Your task to perform on an android device: turn off javascript in the chrome app Image 0: 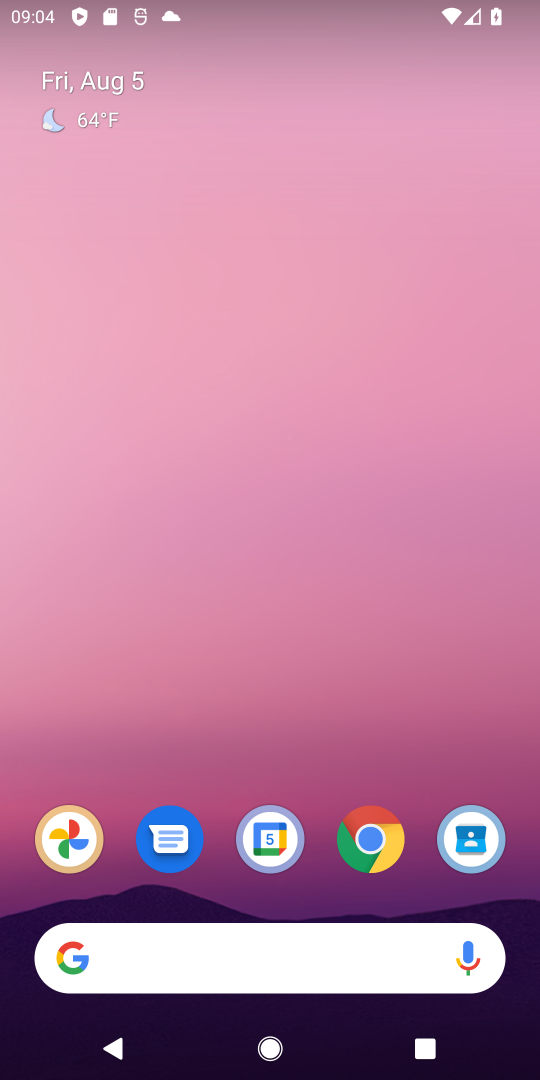
Step 0: click (367, 843)
Your task to perform on an android device: turn off javascript in the chrome app Image 1: 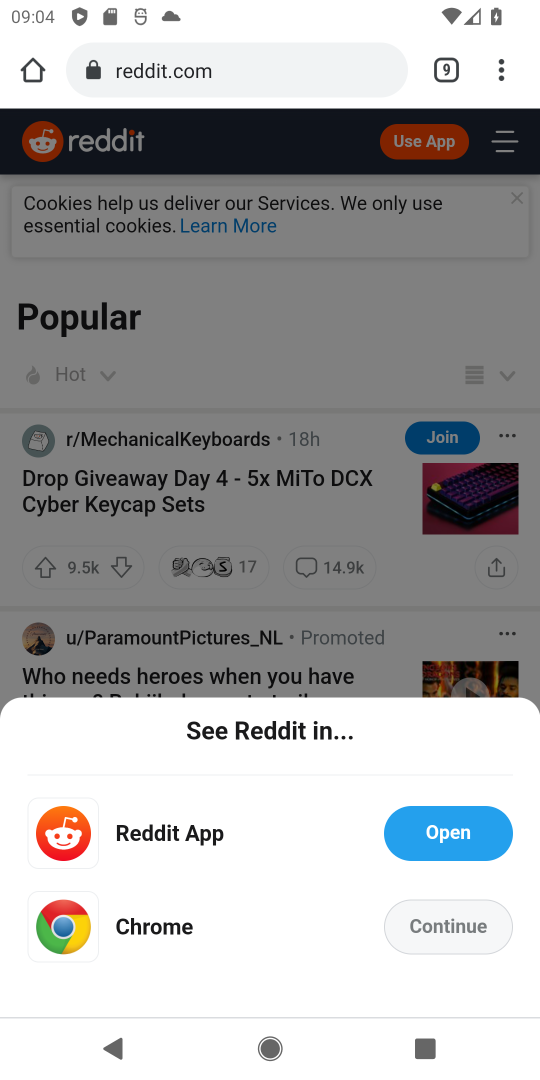
Step 1: click (501, 80)
Your task to perform on an android device: turn off javascript in the chrome app Image 2: 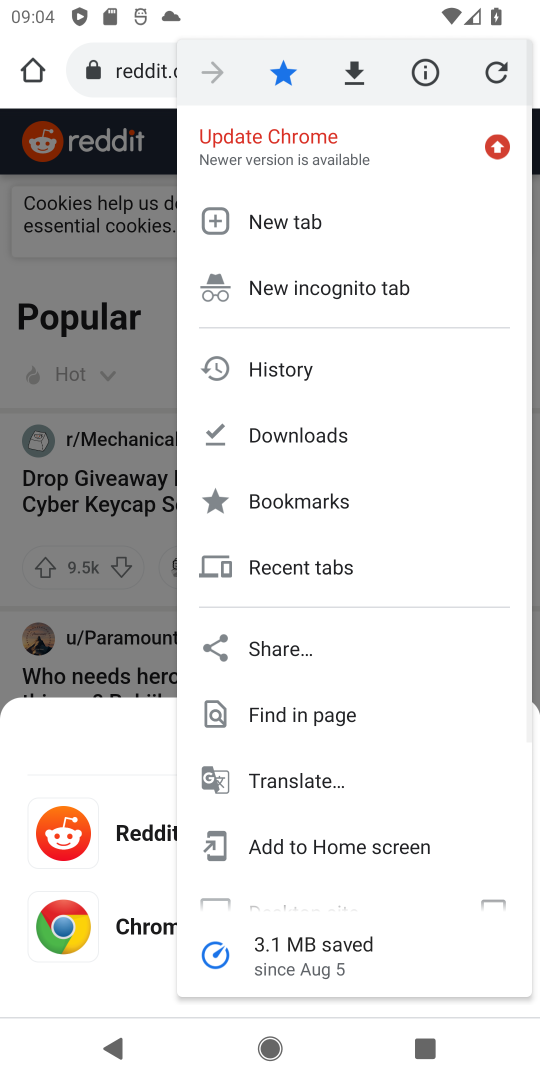
Step 2: click (348, 748)
Your task to perform on an android device: turn off javascript in the chrome app Image 3: 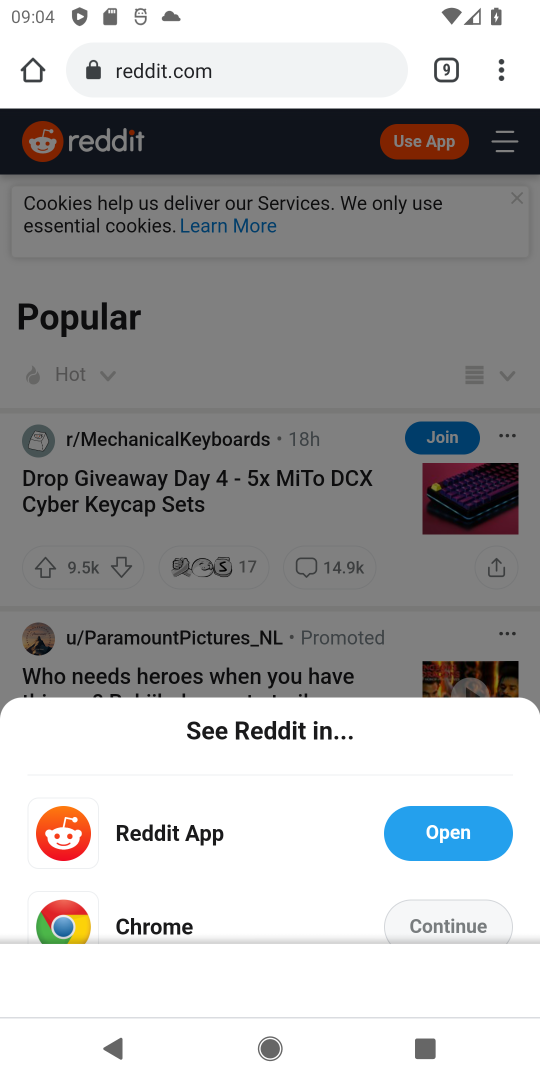
Step 3: drag from (300, 861) to (307, 475)
Your task to perform on an android device: turn off javascript in the chrome app Image 4: 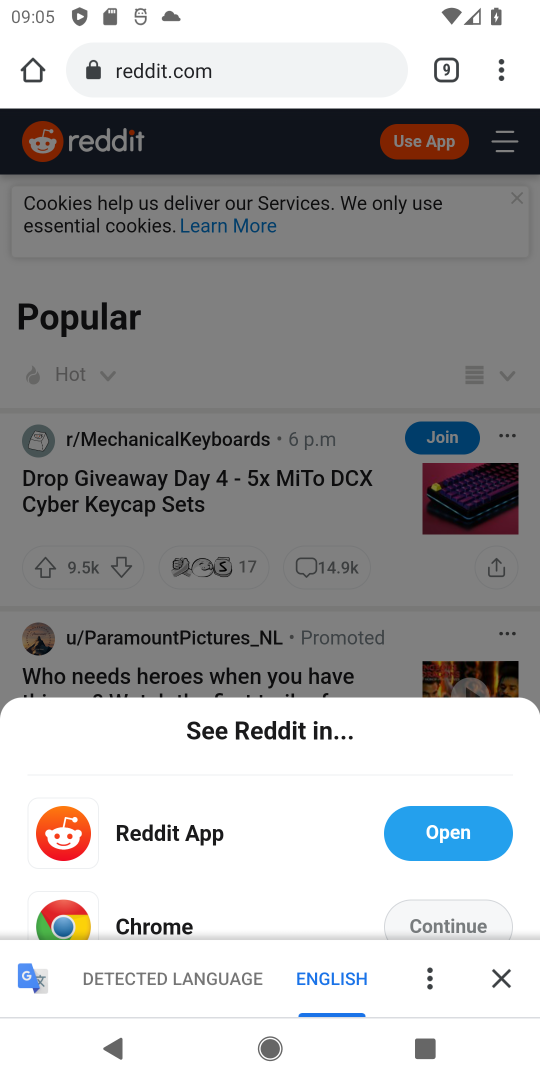
Step 4: click (500, 76)
Your task to perform on an android device: turn off javascript in the chrome app Image 5: 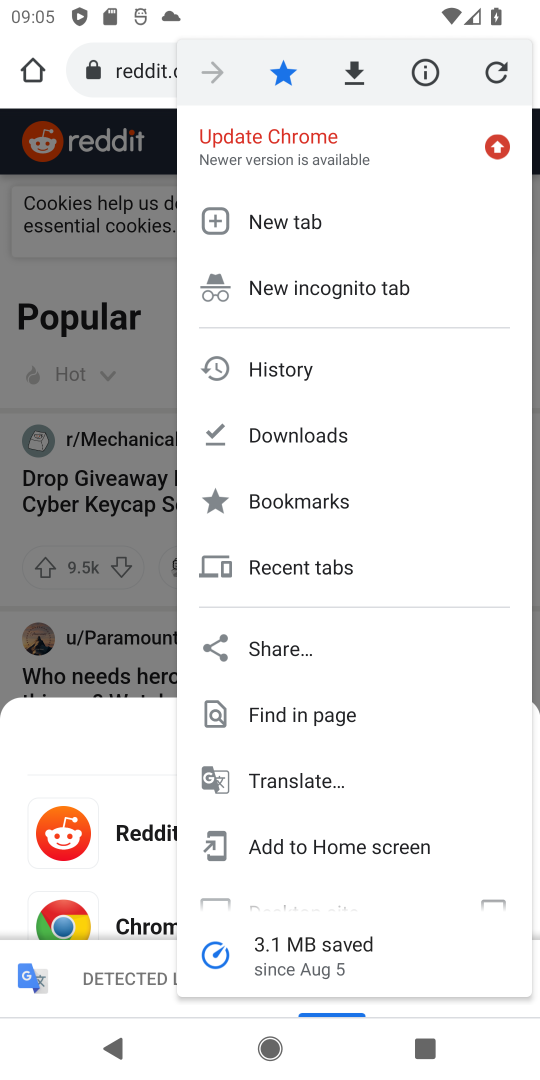
Step 5: drag from (314, 857) to (269, 333)
Your task to perform on an android device: turn off javascript in the chrome app Image 6: 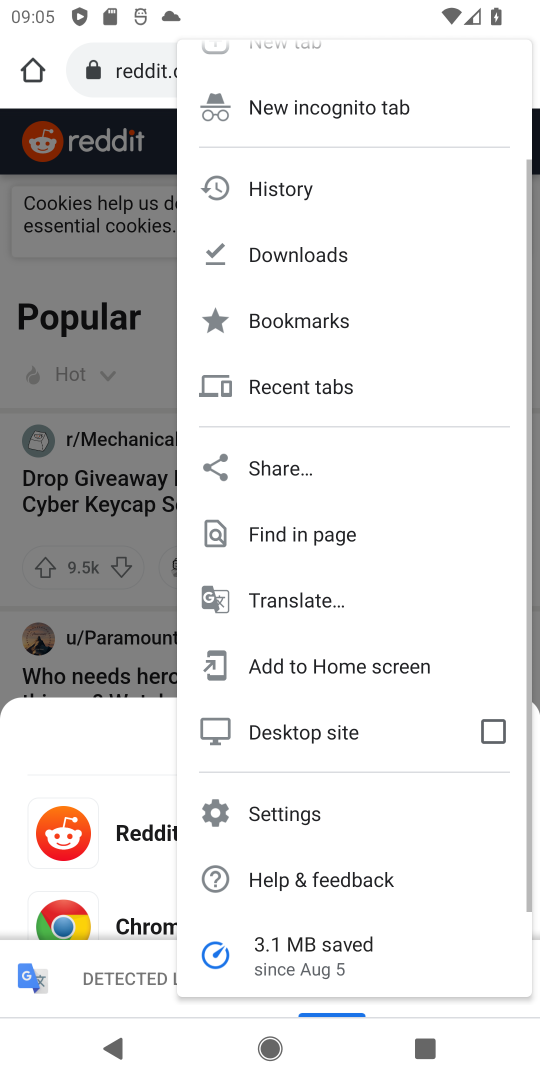
Step 6: drag from (285, 745) to (316, 429)
Your task to perform on an android device: turn off javascript in the chrome app Image 7: 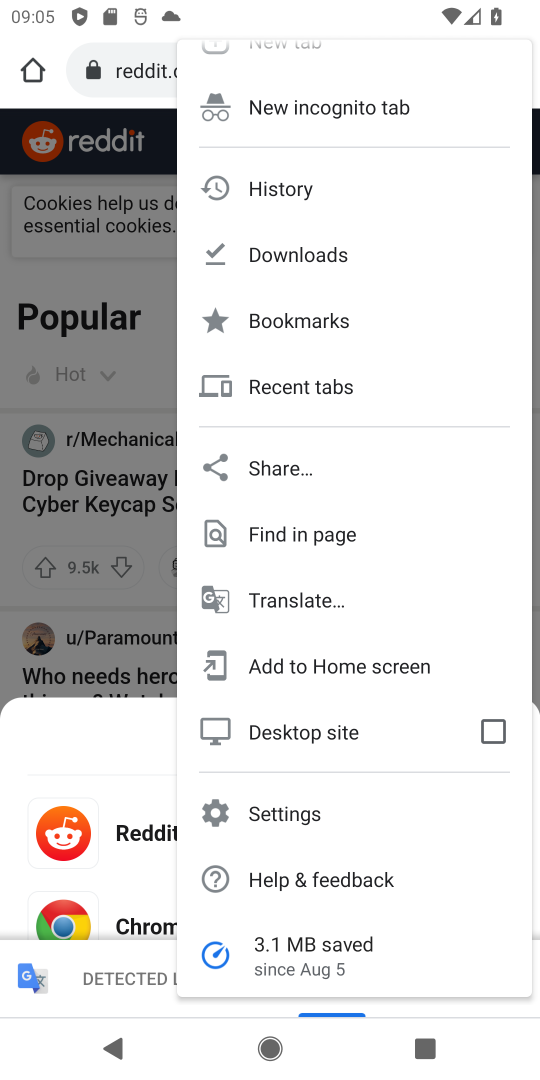
Step 7: click (284, 818)
Your task to perform on an android device: turn off javascript in the chrome app Image 8: 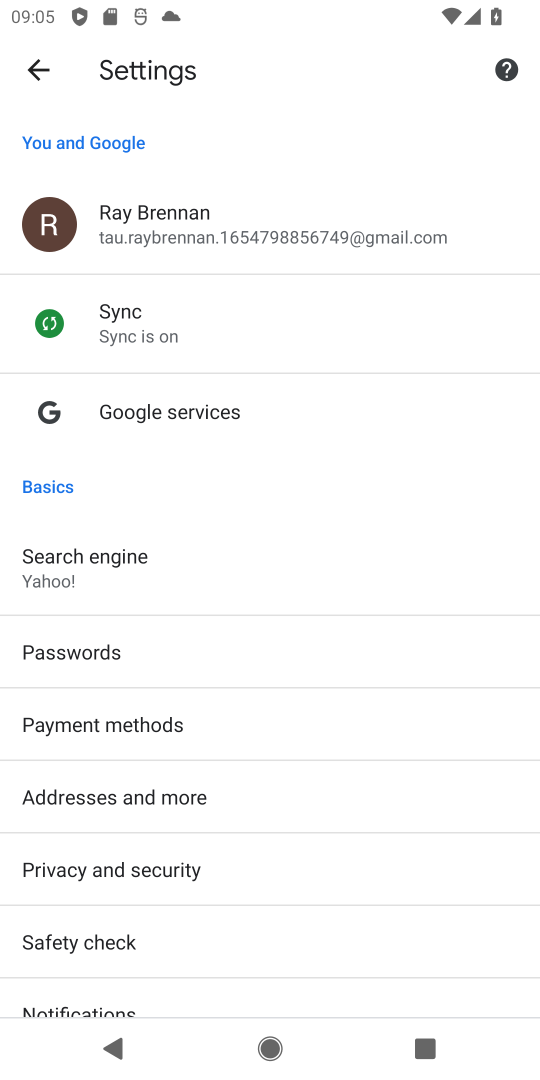
Step 8: drag from (248, 738) to (261, 469)
Your task to perform on an android device: turn off javascript in the chrome app Image 9: 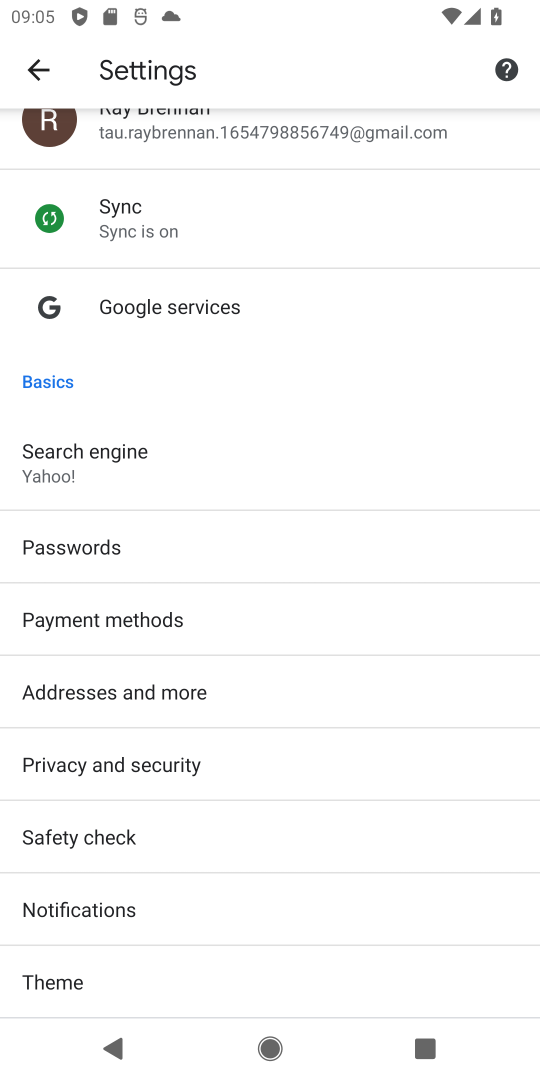
Step 9: drag from (135, 754) to (166, 559)
Your task to perform on an android device: turn off javascript in the chrome app Image 10: 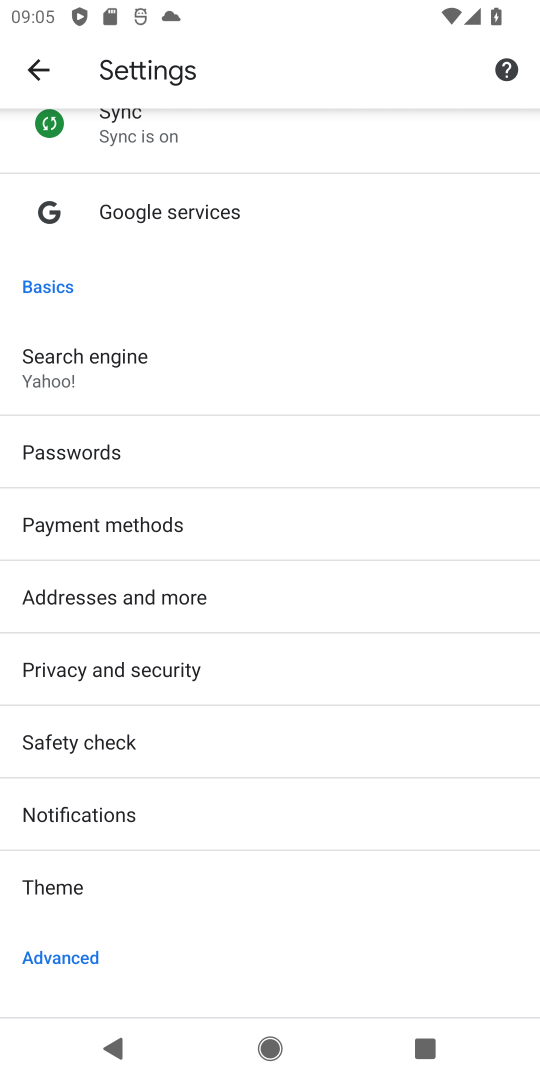
Step 10: drag from (127, 837) to (187, 431)
Your task to perform on an android device: turn off javascript in the chrome app Image 11: 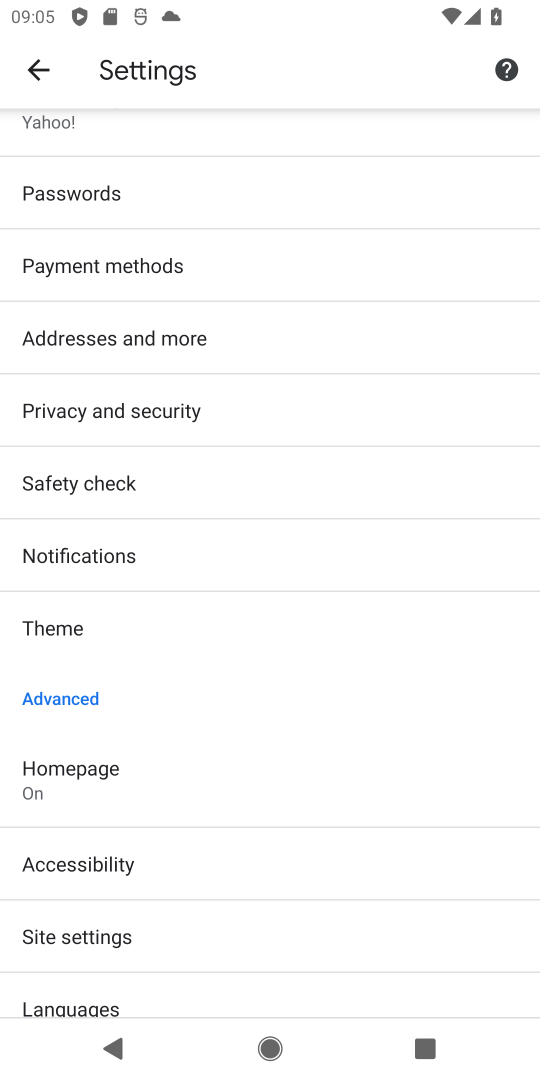
Step 11: drag from (163, 899) to (231, 458)
Your task to perform on an android device: turn off javascript in the chrome app Image 12: 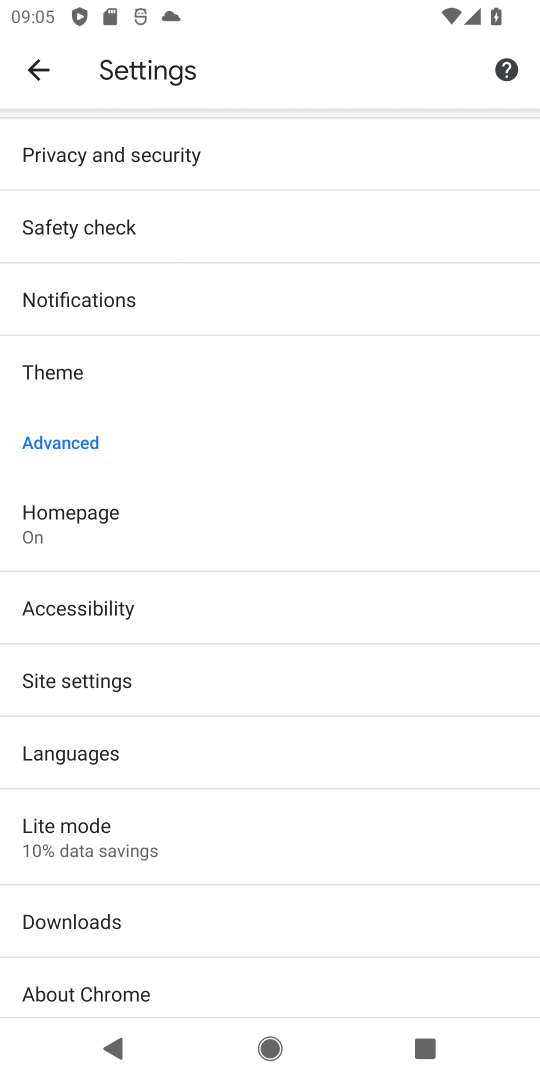
Step 12: click (74, 677)
Your task to perform on an android device: turn off javascript in the chrome app Image 13: 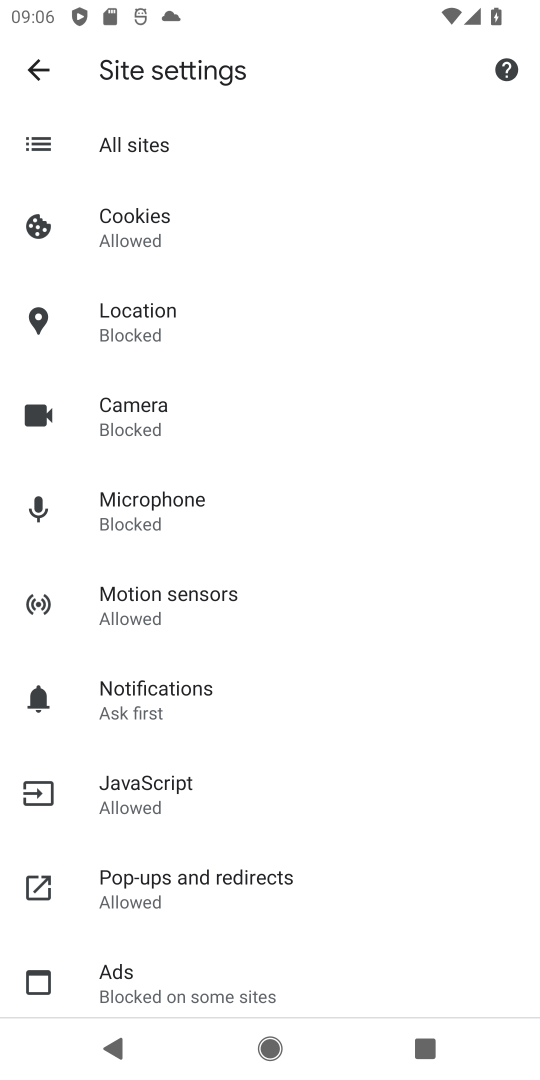
Step 13: click (127, 791)
Your task to perform on an android device: turn off javascript in the chrome app Image 14: 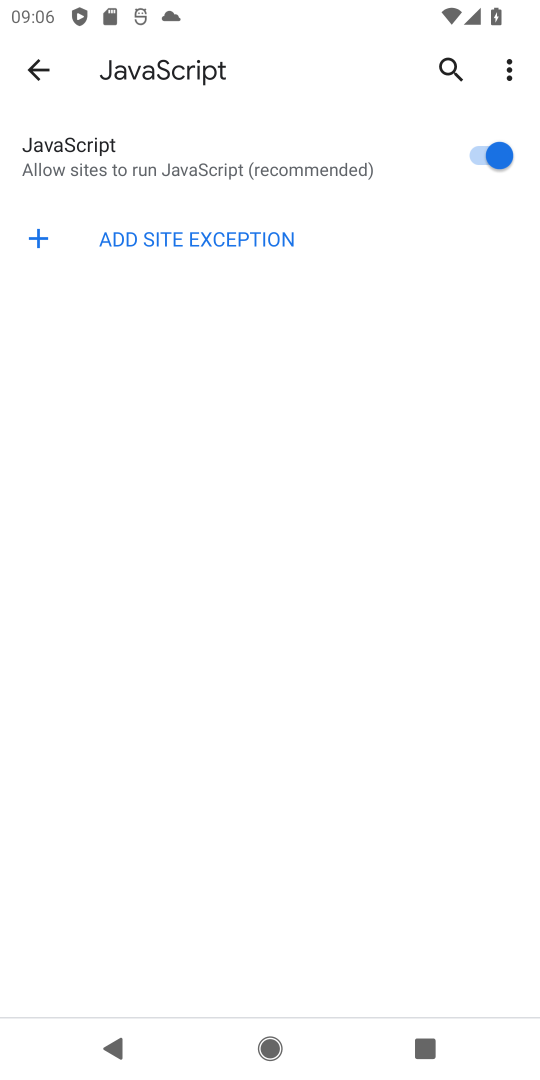
Step 14: click (485, 135)
Your task to perform on an android device: turn off javascript in the chrome app Image 15: 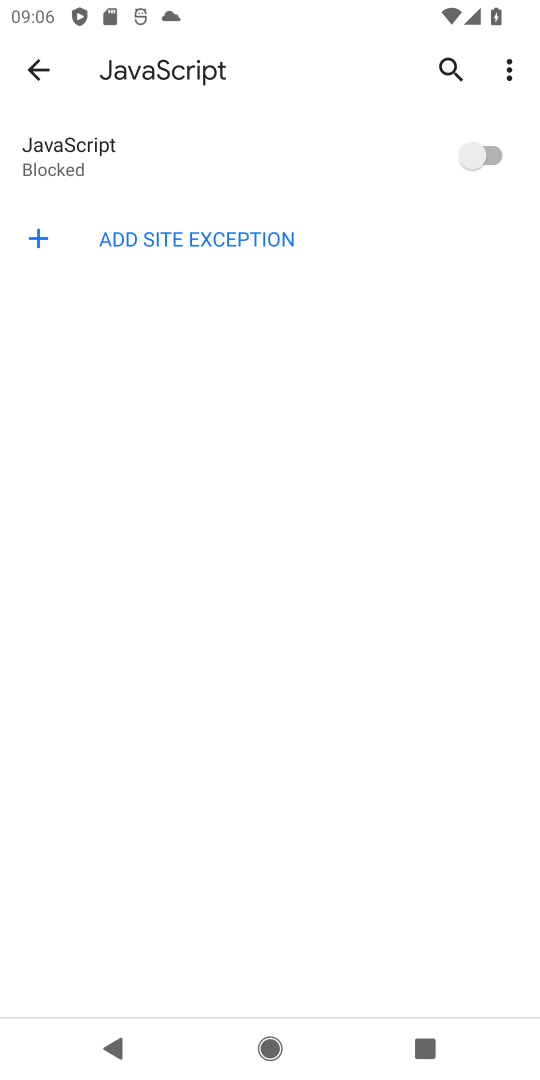
Step 15: task complete